Your task to perform on an android device: toggle translation in the chrome app Image 0: 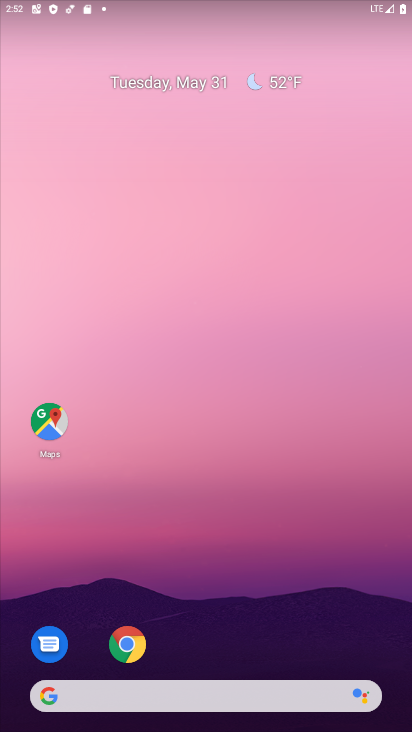
Step 0: click (132, 653)
Your task to perform on an android device: toggle translation in the chrome app Image 1: 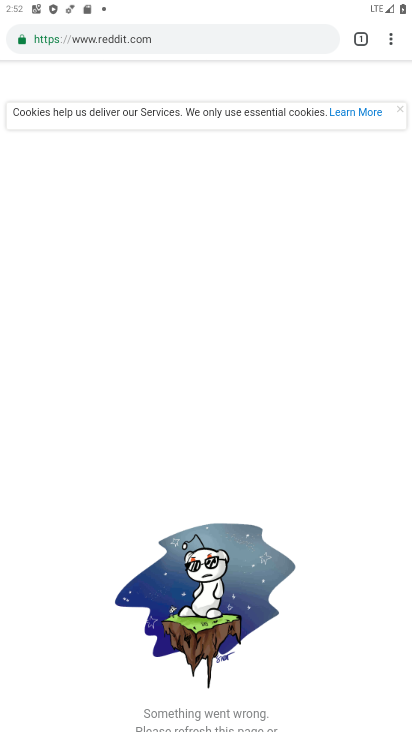
Step 1: click (388, 32)
Your task to perform on an android device: toggle translation in the chrome app Image 2: 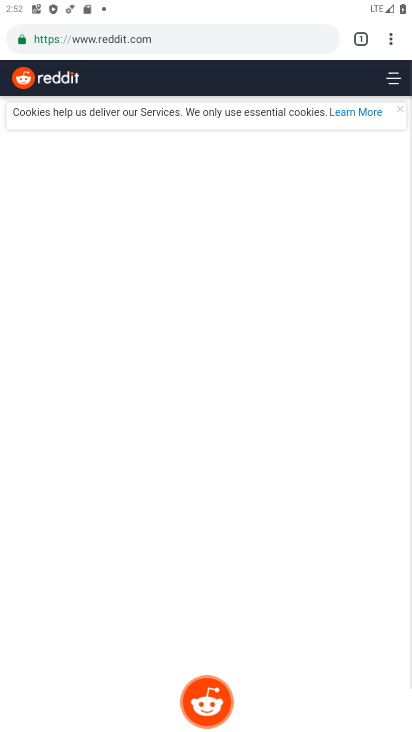
Step 2: drag from (388, 35) to (251, 512)
Your task to perform on an android device: toggle translation in the chrome app Image 3: 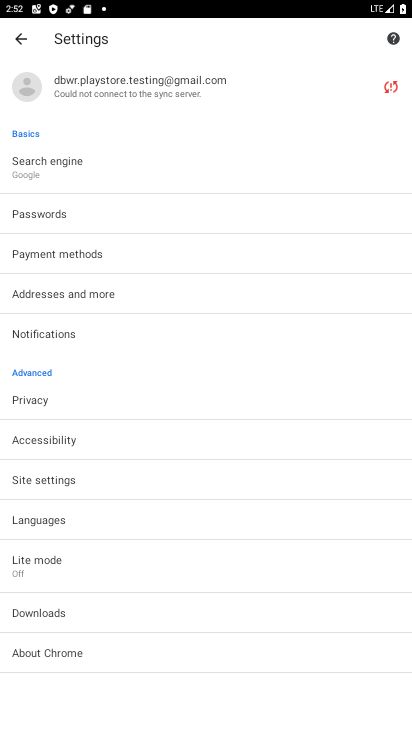
Step 3: click (133, 510)
Your task to perform on an android device: toggle translation in the chrome app Image 4: 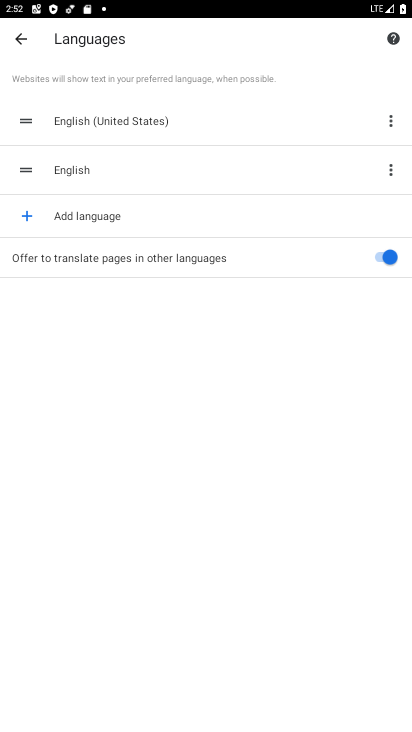
Step 4: click (380, 262)
Your task to perform on an android device: toggle translation in the chrome app Image 5: 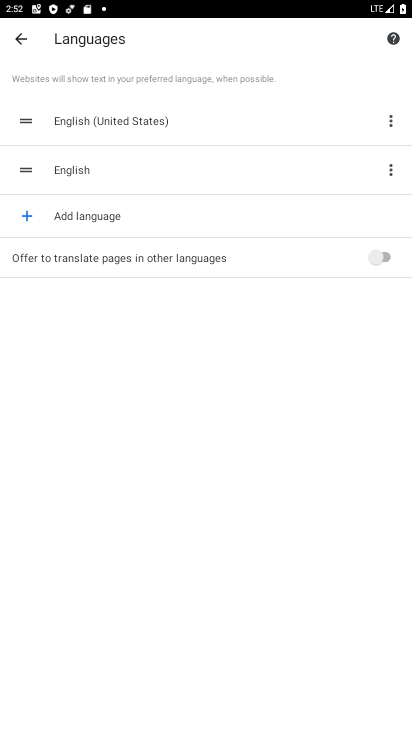
Step 5: task complete